Your task to perform on an android device: turn notification dots on Image 0: 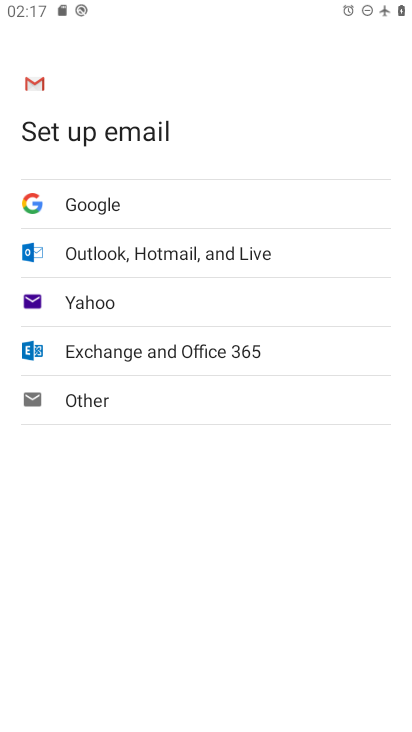
Step 0: press home button
Your task to perform on an android device: turn notification dots on Image 1: 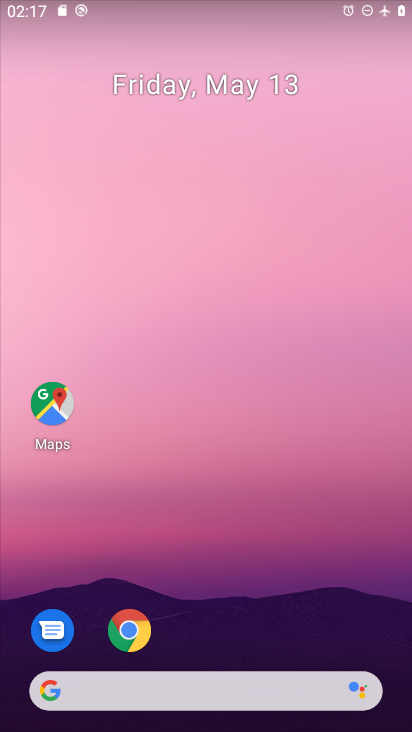
Step 1: drag from (302, 706) to (298, 176)
Your task to perform on an android device: turn notification dots on Image 2: 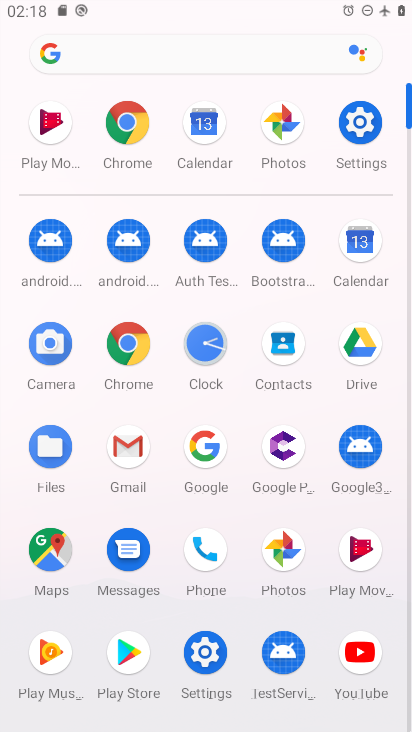
Step 2: click (366, 127)
Your task to perform on an android device: turn notification dots on Image 3: 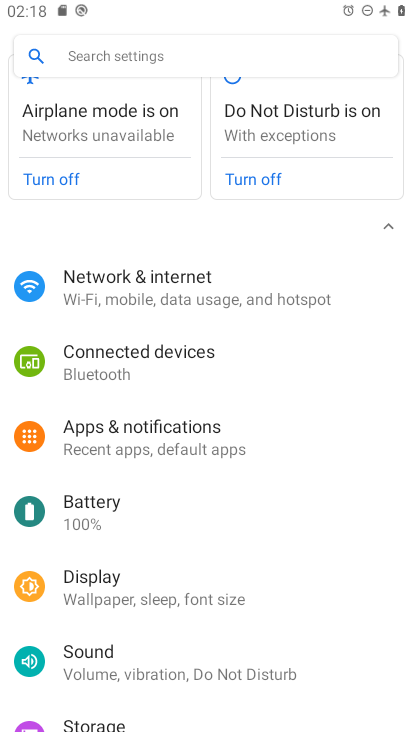
Step 3: click (178, 54)
Your task to perform on an android device: turn notification dots on Image 4: 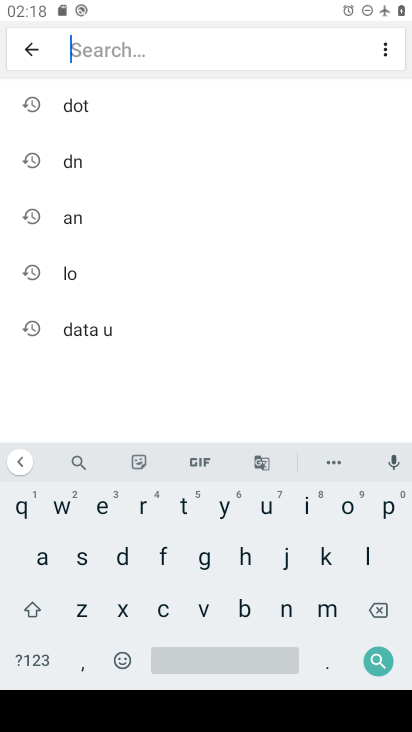
Step 4: click (125, 563)
Your task to perform on an android device: turn notification dots on Image 5: 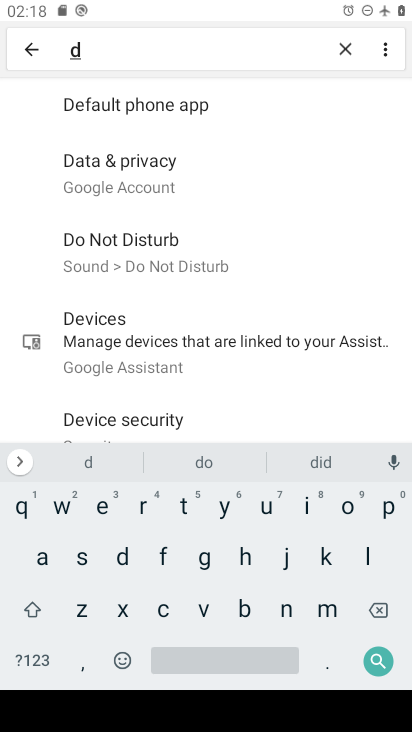
Step 5: click (341, 506)
Your task to perform on an android device: turn notification dots on Image 6: 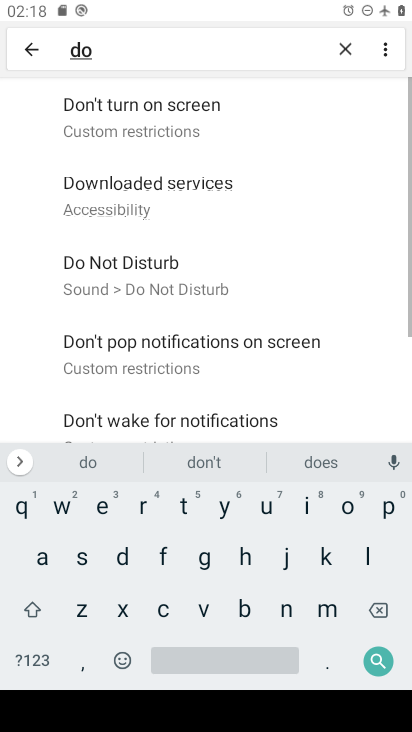
Step 6: click (184, 506)
Your task to perform on an android device: turn notification dots on Image 7: 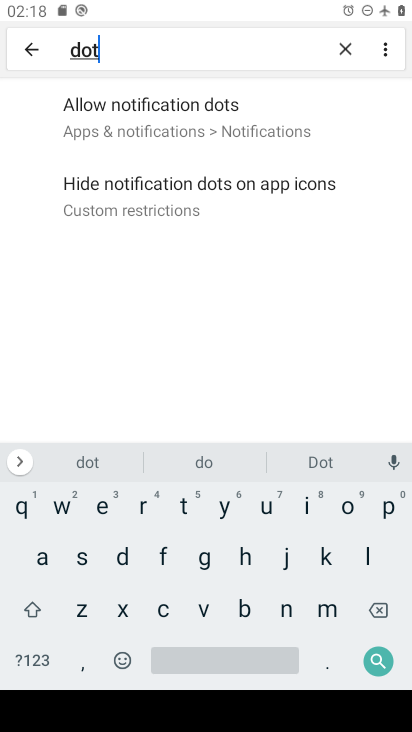
Step 7: click (206, 126)
Your task to perform on an android device: turn notification dots on Image 8: 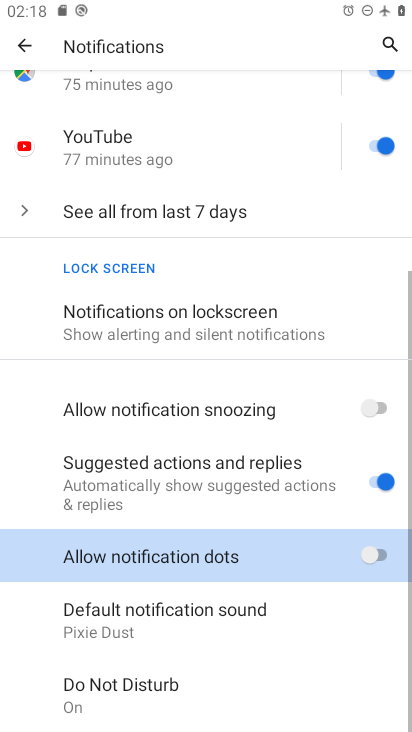
Step 8: task complete